Your task to perform on an android device: Go to network settings Image 0: 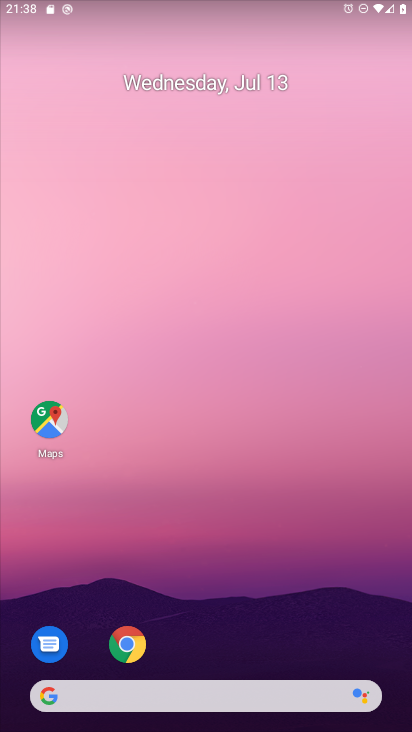
Step 0: press home button
Your task to perform on an android device: Go to network settings Image 1: 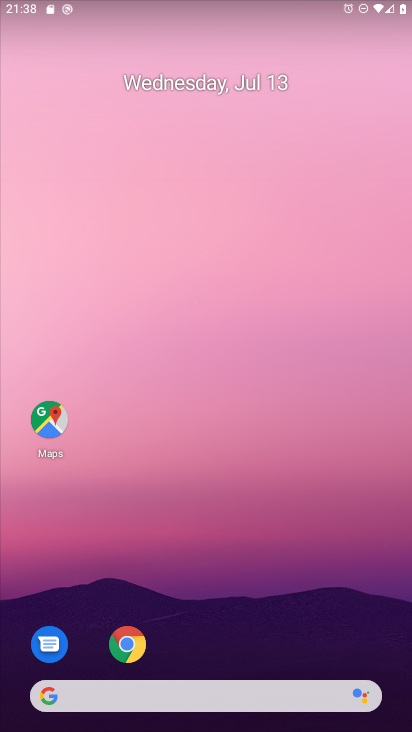
Step 1: drag from (260, 600) to (231, 129)
Your task to perform on an android device: Go to network settings Image 2: 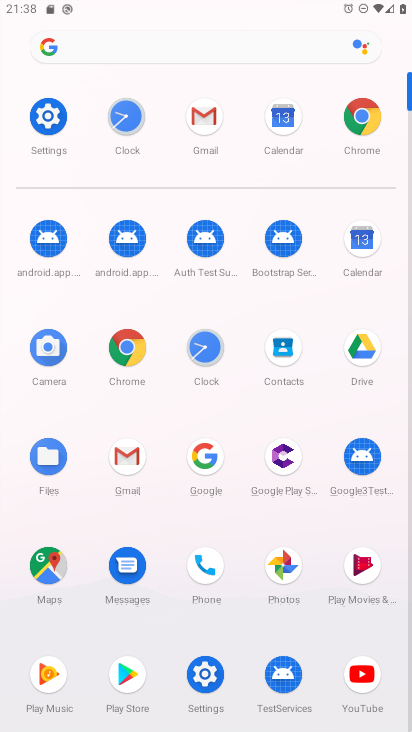
Step 2: click (41, 114)
Your task to perform on an android device: Go to network settings Image 3: 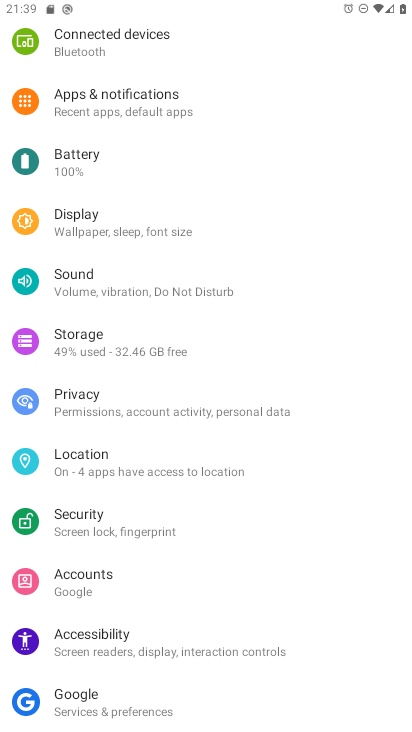
Step 3: drag from (215, 149) to (247, 611)
Your task to perform on an android device: Go to network settings Image 4: 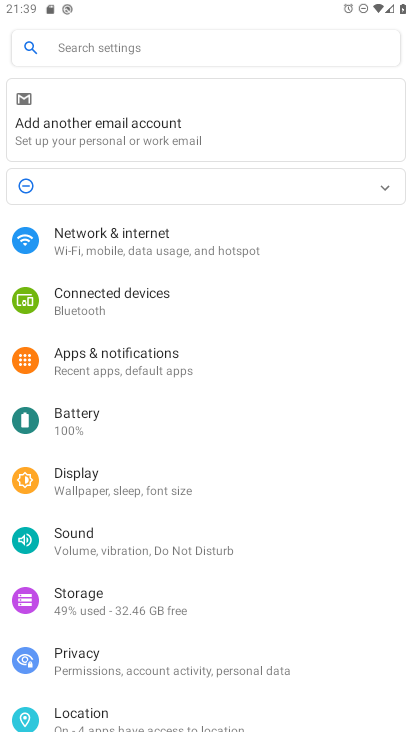
Step 4: click (157, 241)
Your task to perform on an android device: Go to network settings Image 5: 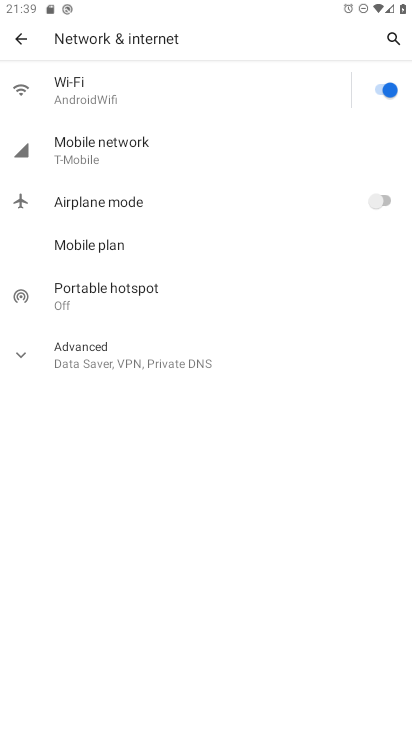
Step 5: task complete